Your task to perform on an android device: delete the emails in spam in the gmail app Image 0: 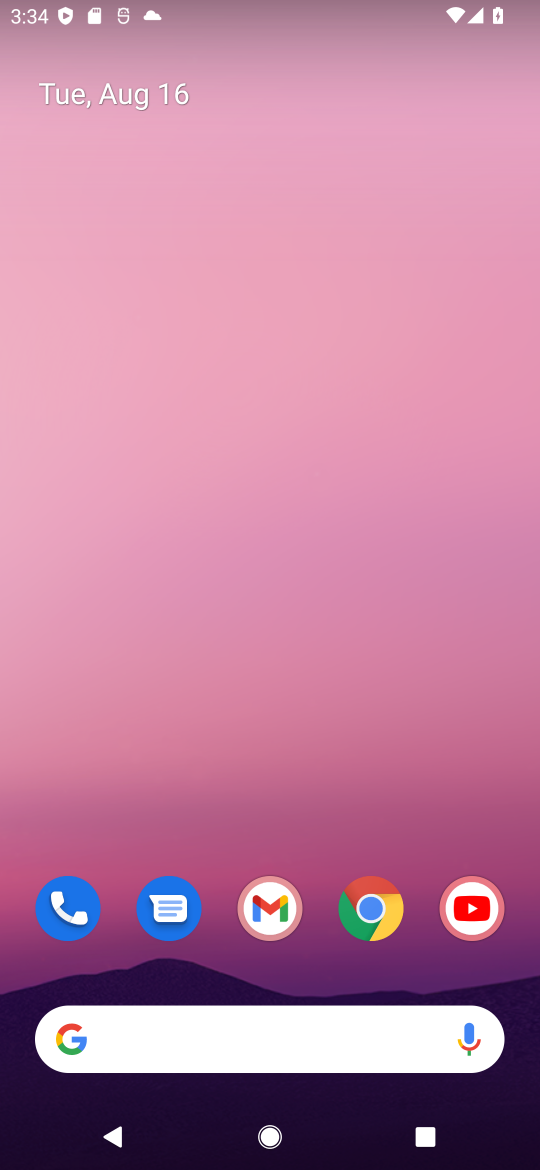
Step 0: press home button
Your task to perform on an android device: delete the emails in spam in the gmail app Image 1: 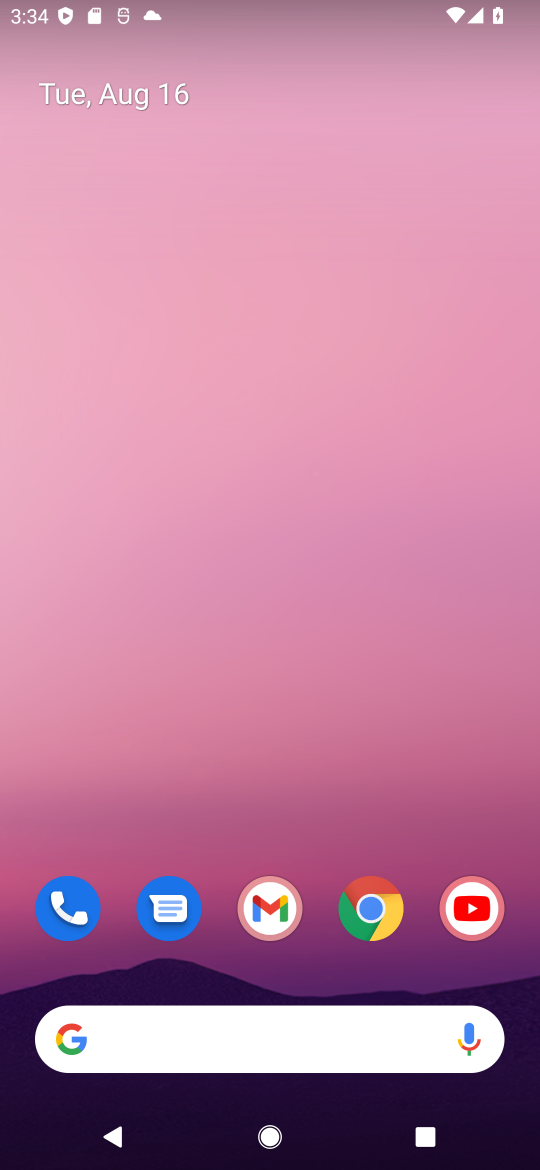
Step 1: drag from (315, 962) to (370, 42)
Your task to perform on an android device: delete the emails in spam in the gmail app Image 2: 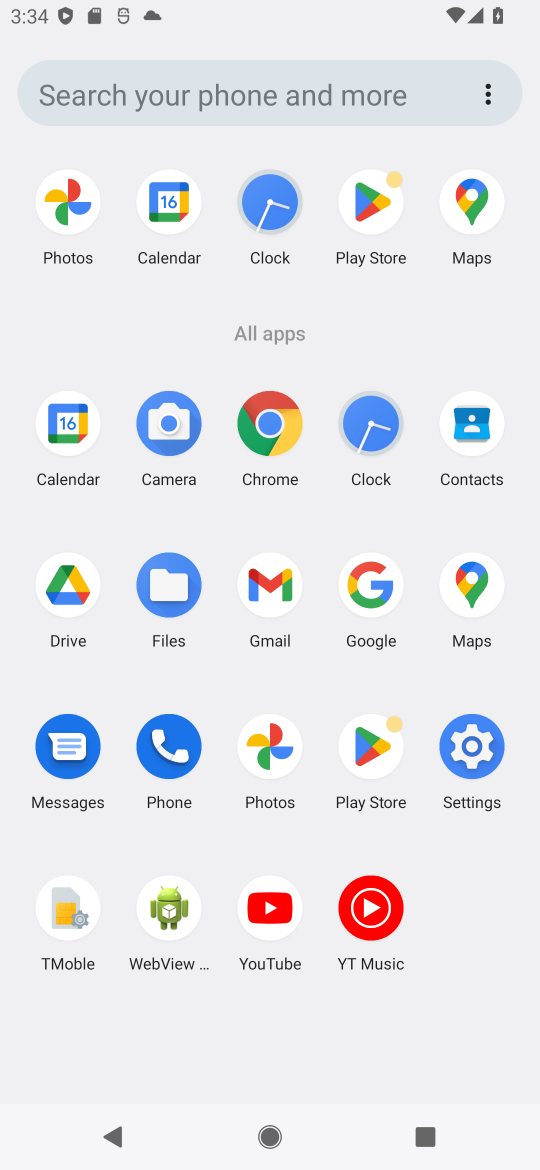
Step 2: click (268, 576)
Your task to perform on an android device: delete the emails in spam in the gmail app Image 3: 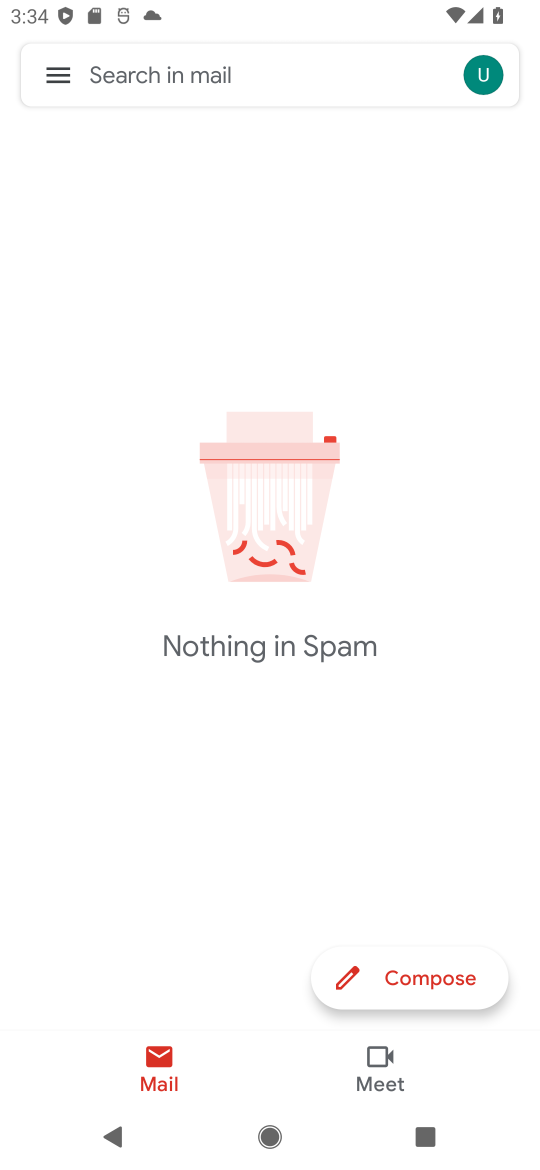
Step 3: task complete